Your task to perform on an android device: Do I have any events tomorrow? Image 0: 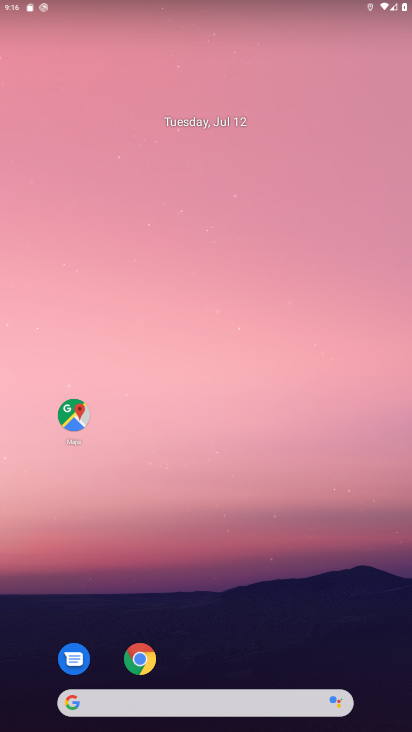
Step 0: drag from (328, 525) to (266, 115)
Your task to perform on an android device: Do I have any events tomorrow? Image 1: 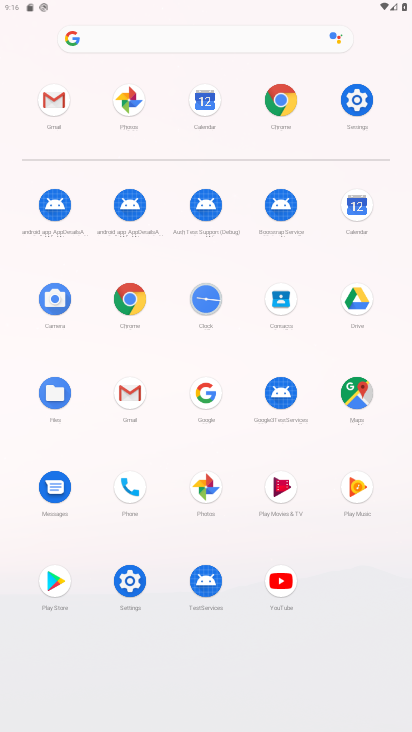
Step 1: click (365, 202)
Your task to perform on an android device: Do I have any events tomorrow? Image 2: 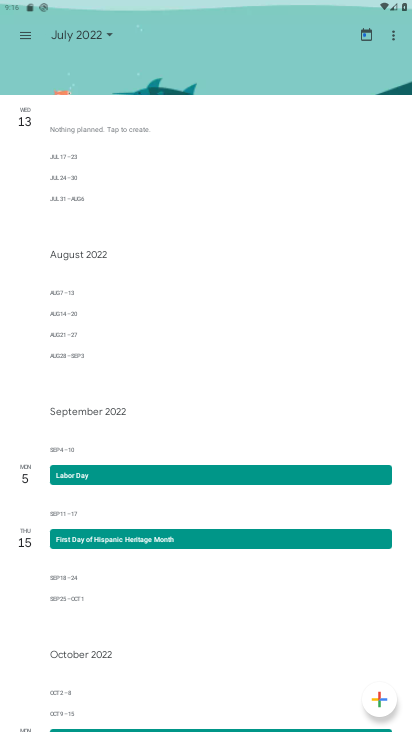
Step 2: click (81, 31)
Your task to perform on an android device: Do I have any events tomorrow? Image 3: 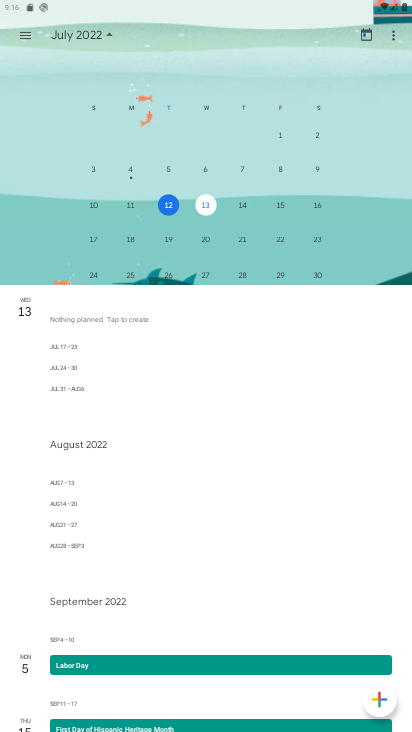
Step 3: click (205, 198)
Your task to perform on an android device: Do I have any events tomorrow? Image 4: 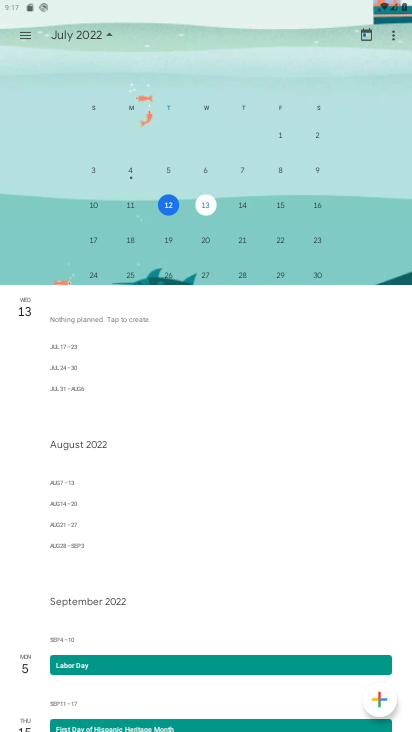
Step 4: task complete